Your task to perform on an android device: add a contact in the contacts app Image 0: 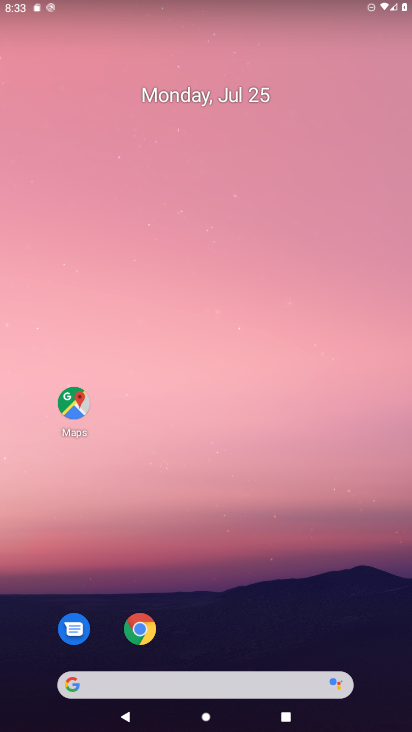
Step 0: drag from (248, 627) to (265, 19)
Your task to perform on an android device: add a contact in the contacts app Image 1: 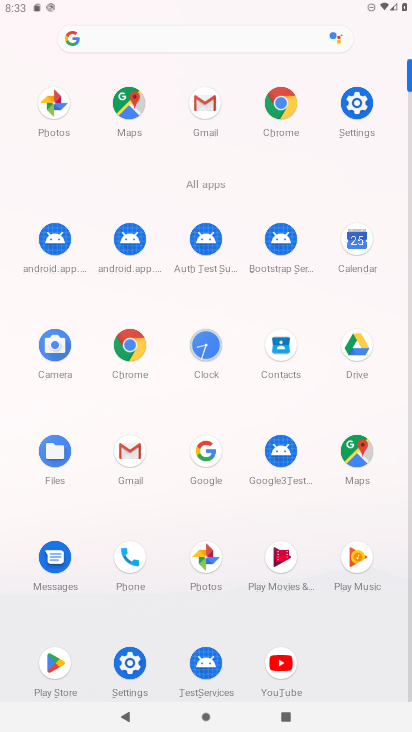
Step 1: click (127, 555)
Your task to perform on an android device: add a contact in the contacts app Image 2: 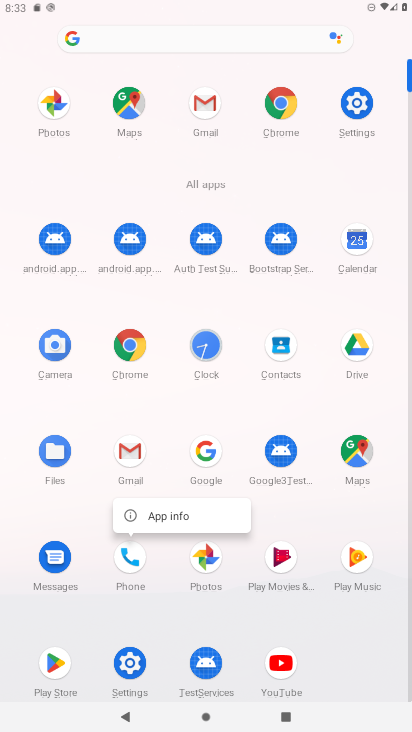
Step 2: click (275, 342)
Your task to perform on an android device: add a contact in the contacts app Image 3: 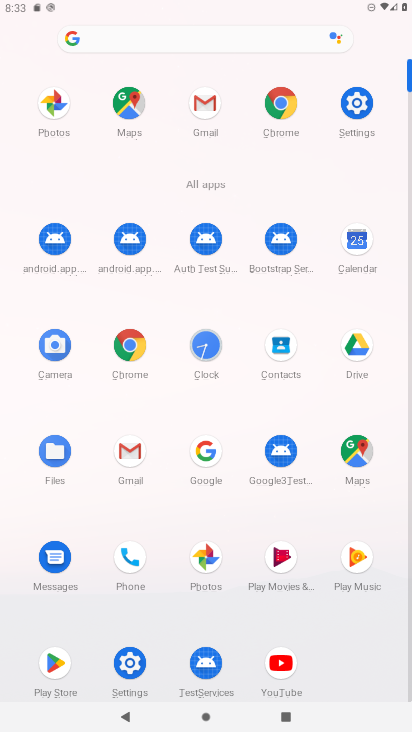
Step 3: click (282, 346)
Your task to perform on an android device: add a contact in the contacts app Image 4: 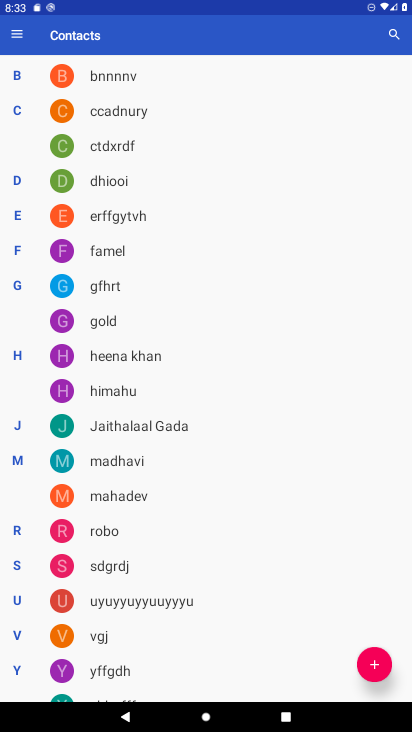
Step 4: click (377, 668)
Your task to perform on an android device: add a contact in the contacts app Image 5: 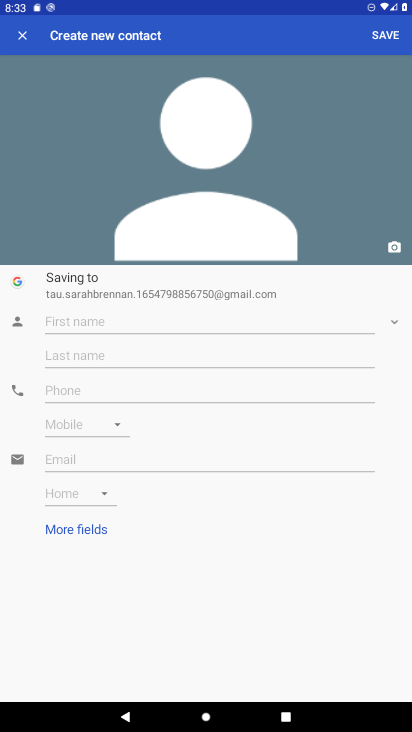
Step 5: click (82, 320)
Your task to perform on an android device: add a contact in the contacts app Image 6: 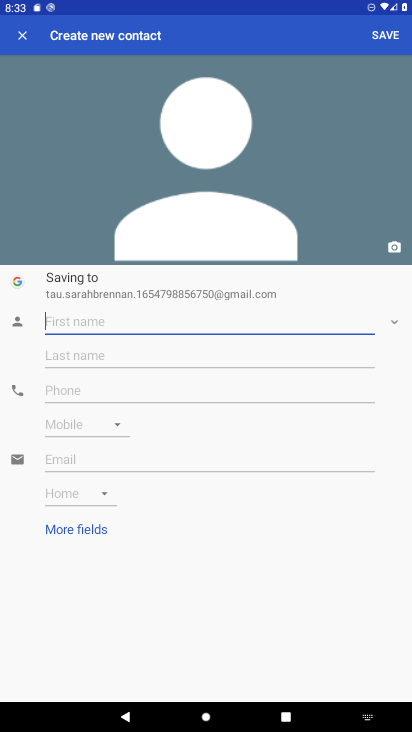
Step 6: type "sunny"
Your task to perform on an android device: add a contact in the contacts app Image 7: 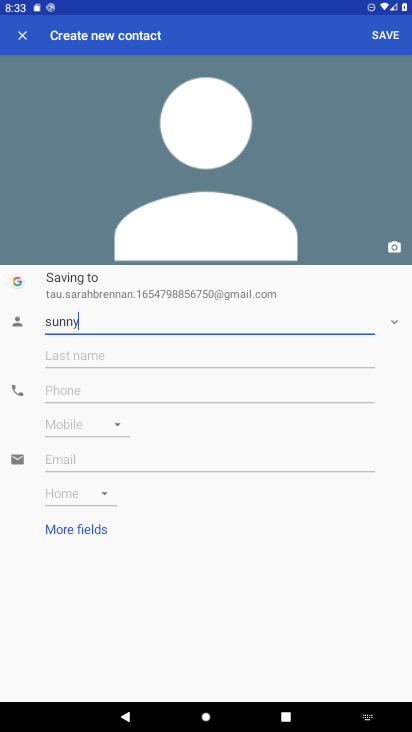
Step 7: click (97, 393)
Your task to perform on an android device: add a contact in the contacts app Image 8: 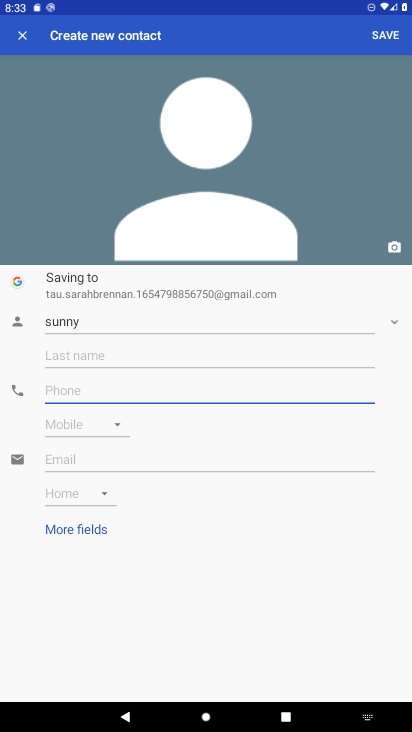
Step 8: type "8776543456"
Your task to perform on an android device: add a contact in the contacts app Image 9: 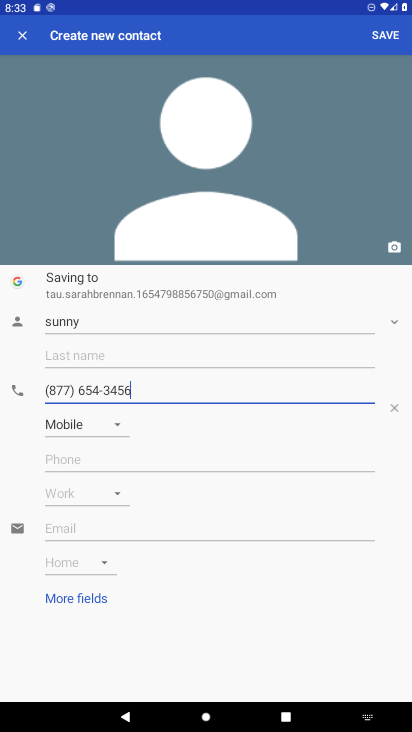
Step 9: click (371, 36)
Your task to perform on an android device: add a contact in the contacts app Image 10: 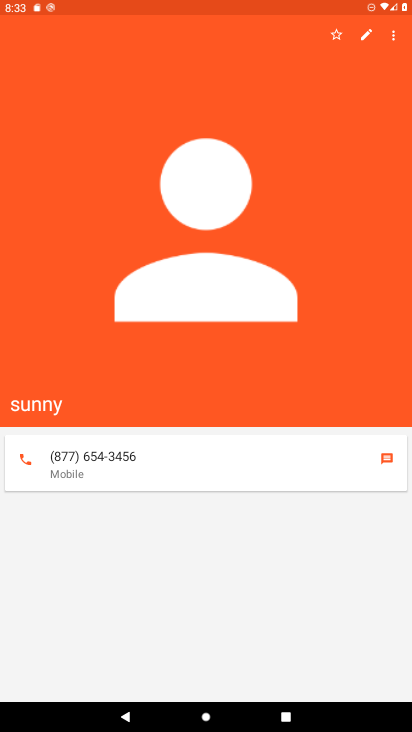
Step 10: task complete